Your task to perform on an android device: set default search engine in the chrome app Image 0: 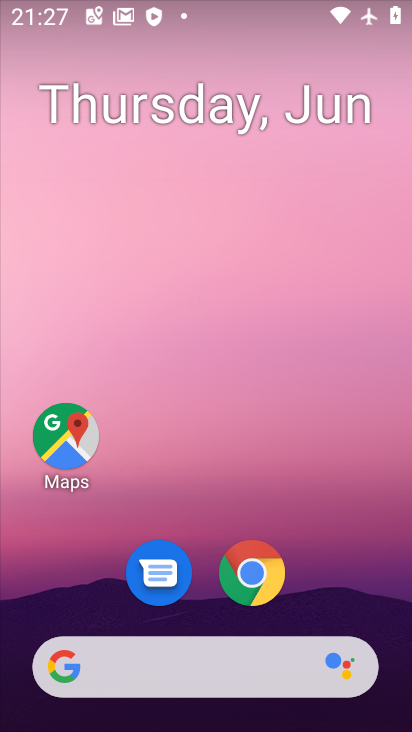
Step 0: drag from (301, 525) to (328, 274)
Your task to perform on an android device: set default search engine in the chrome app Image 1: 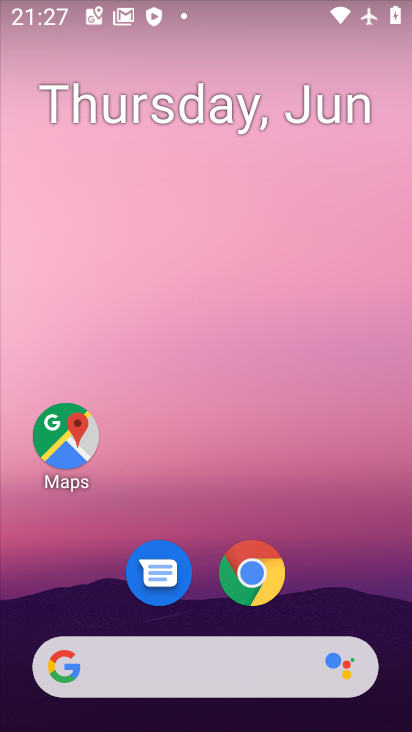
Step 1: drag from (202, 611) to (206, 256)
Your task to perform on an android device: set default search engine in the chrome app Image 2: 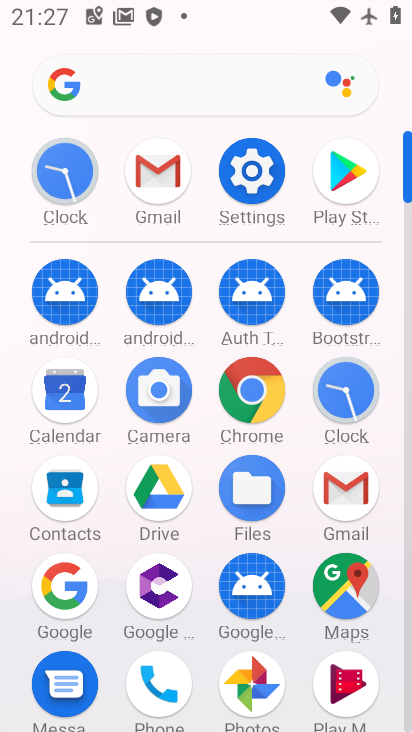
Step 2: click (252, 406)
Your task to perform on an android device: set default search engine in the chrome app Image 3: 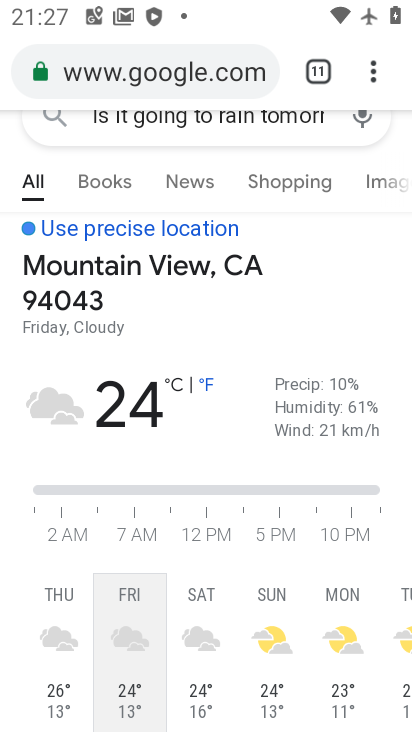
Step 3: click (382, 66)
Your task to perform on an android device: set default search engine in the chrome app Image 4: 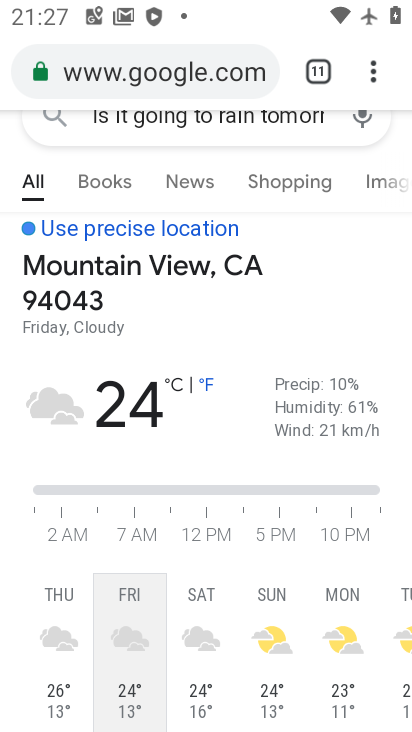
Step 4: drag from (282, 230) to (301, 378)
Your task to perform on an android device: set default search engine in the chrome app Image 5: 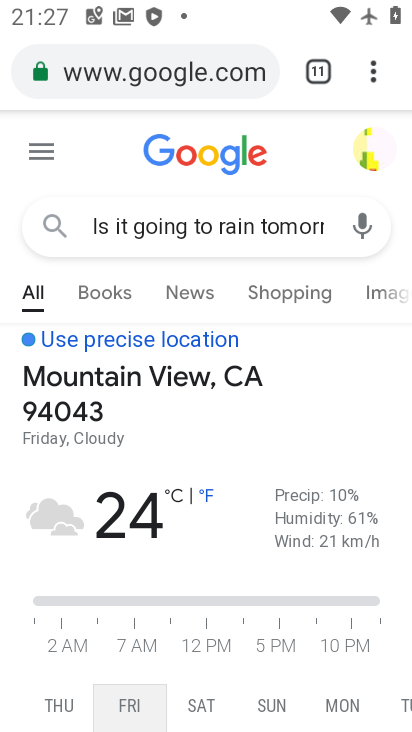
Step 5: click (375, 70)
Your task to perform on an android device: set default search engine in the chrome app Image 6: 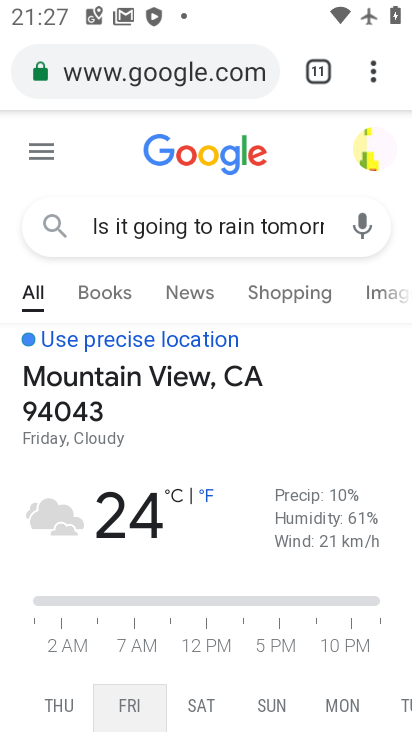
Step 6: click (371, 70)
Your task to perform on an android device: set default search engine in the chrome app Image 7: 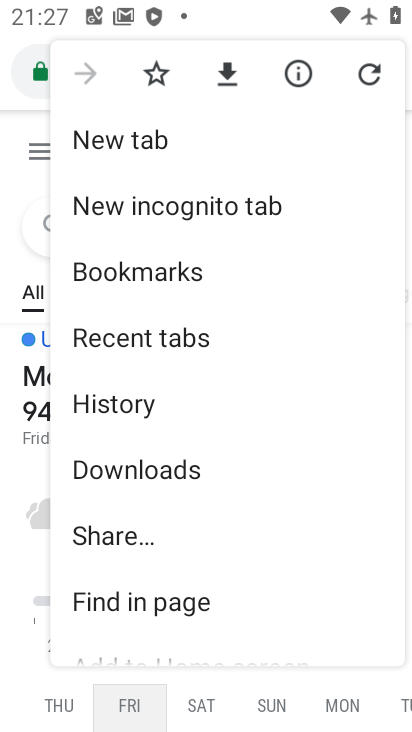
Step 7: click (152, 137)
Your task to perform on an android device: set default search engine in the chrome app Image 8: 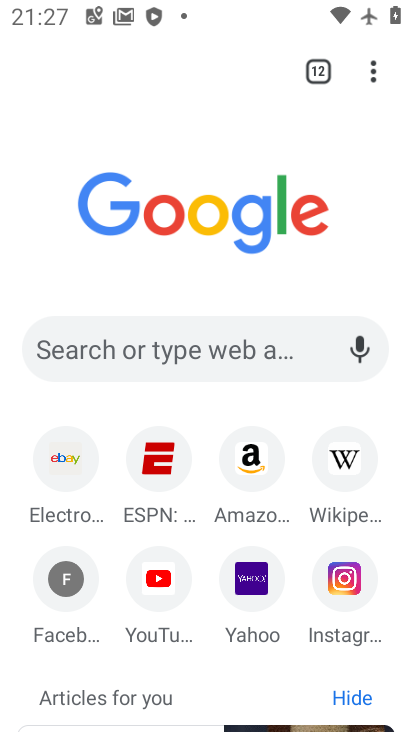
Step 8: click (374, 73)
Your task to perform on an android device: set default search engine in the chrome app Image 9: 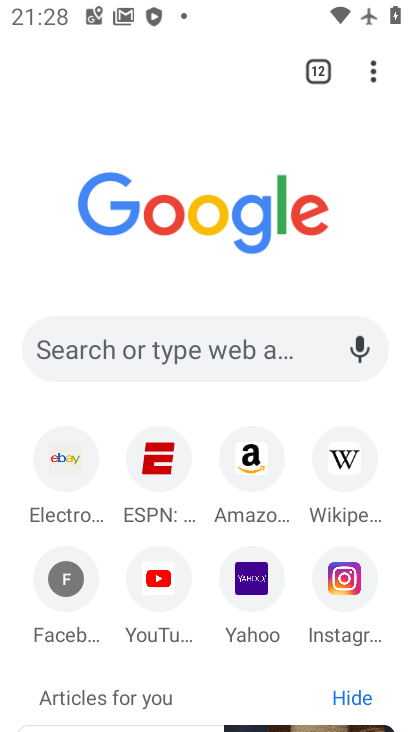
Step 9: click (373, 70)
Your task to perform on an android device: set default search engine in the chrome app Image 10: 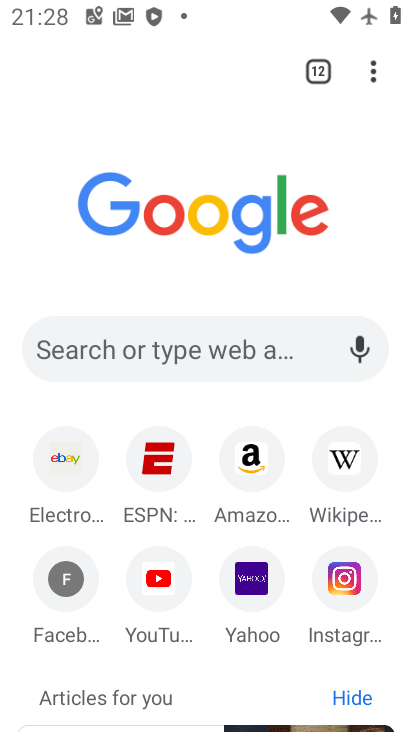
Step 10: click (373, 70)
Your task to perform on an android device: set default search engine in the chrome app Image 11: 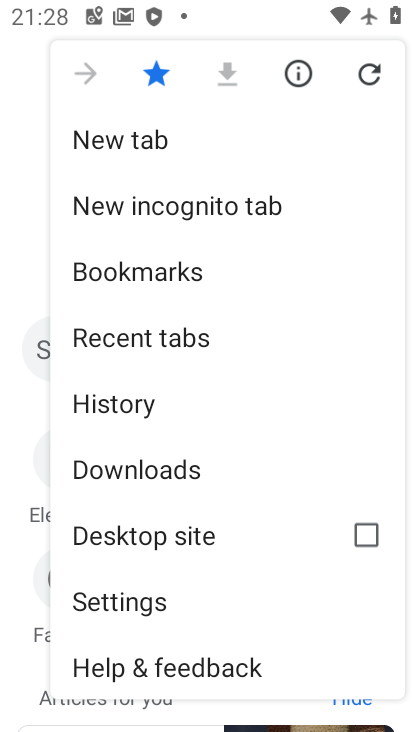
Step 11: click (185, 600)
Your task to perform on an android device: set default search engine in the chrome app Image 12: 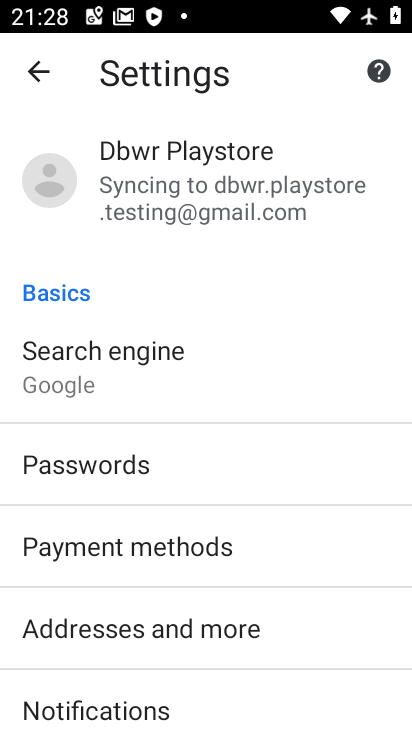
Step 12: click (156, 379)
Your task to perform on an android device: set default search engine in the chrome app Image 13: 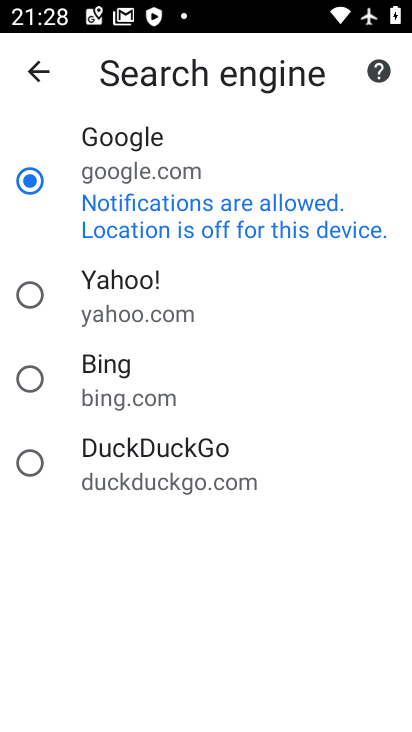
Step 13: click (99, 304)
Your task to perform on an android device: set default search engine in the chrome app Image 14: 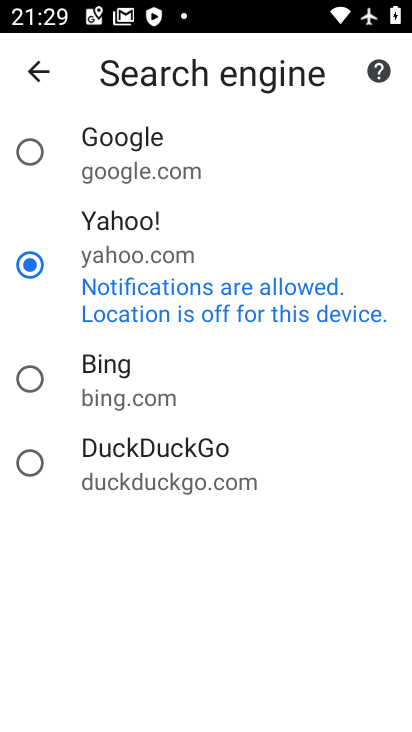
Step 14: task complete